Your task to perform on an android device: Go to privacy settings Image 0: 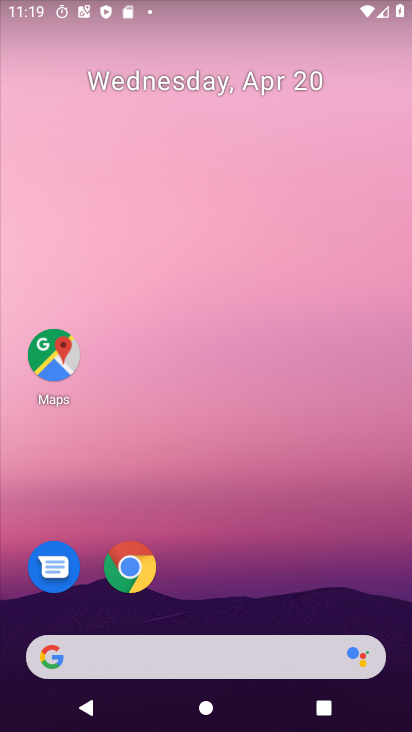
Step 0: drag from (290, 606) to (288, 202)
Your task to perform on an android device: Go to privacy settings Image 1: 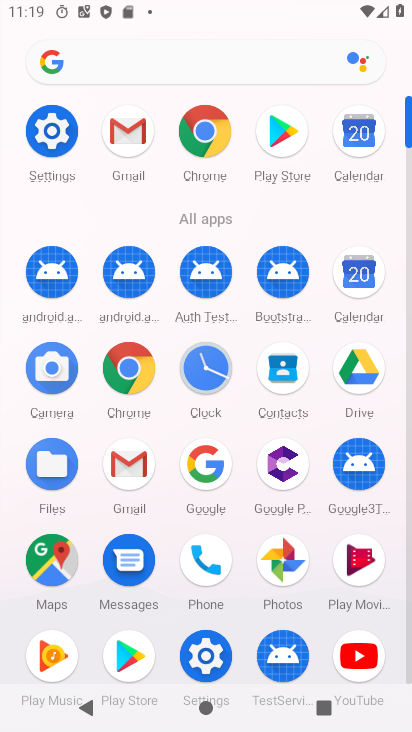
Step 1: click (53, 132)
Your task to perform on an android device: Go to privacy settings Image 2: 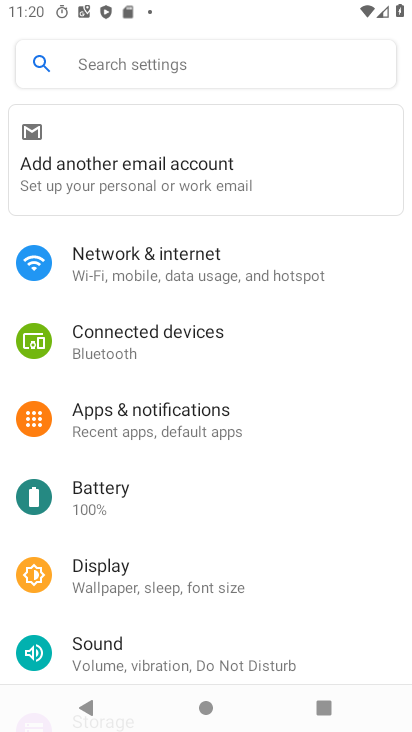
Step 2: drag from (144, 576) to (192, 349)
Your task to perform on an android device: Go to privacy settings Image 3: 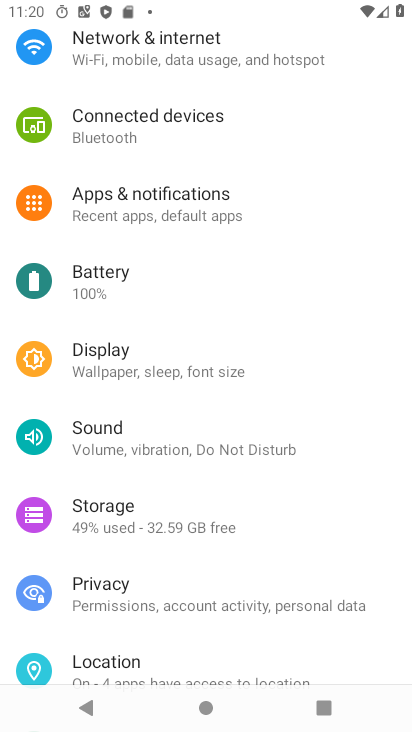
Step 3: click (149, 598)
Your task to perform on an android device: Go to privacy settings Image 4: 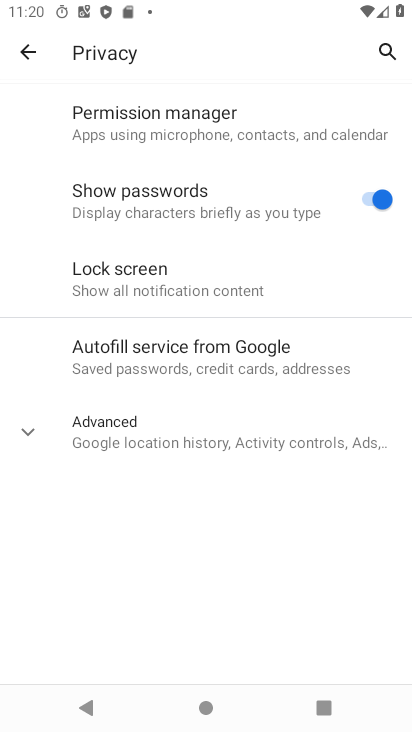
Step 4: task complete